Your task to perform on an android device: toggle sleep mode Image 0: 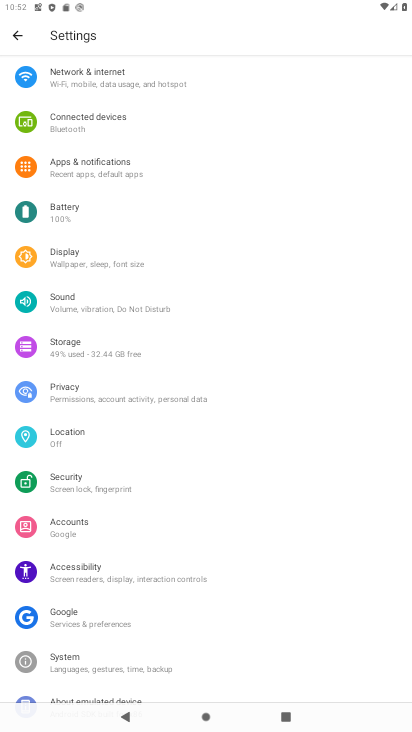
Step 0: click (106, 270)
Your task to perform on an android device: toggle sleep mode Image 1: 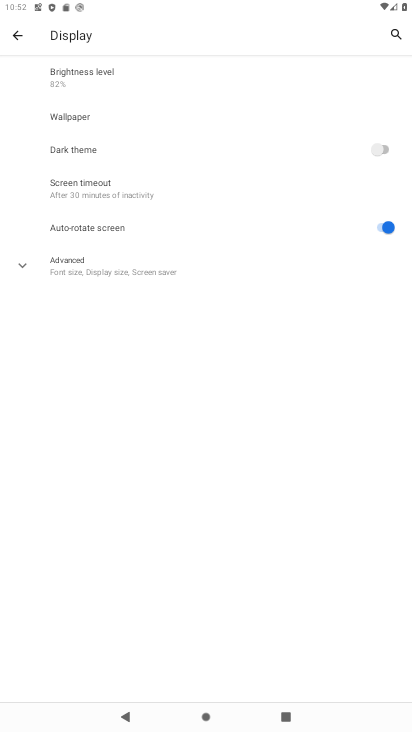
Step 1: click (116, 174)
Your task to perform on an android device: toggle sleep mode Image 2: 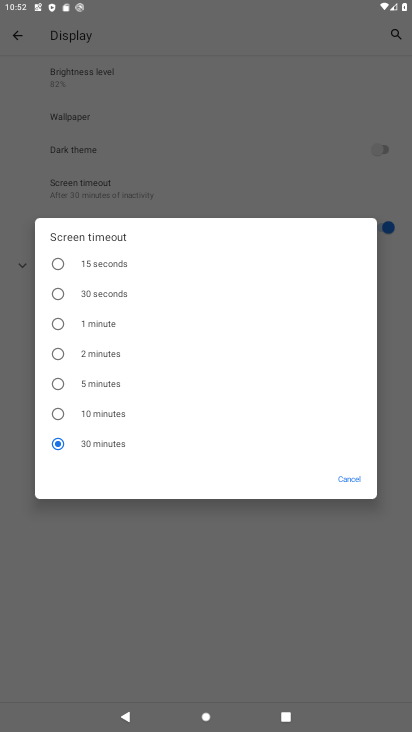
Step 2: click (118, 256)
Your task to perform on an android device: toggle sleep mode Image 3: 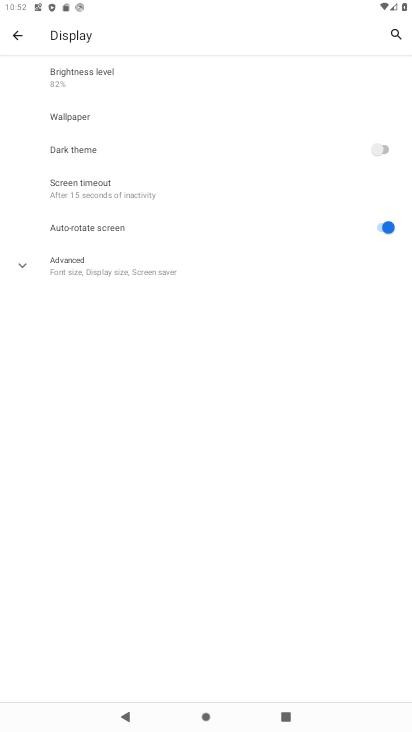
Step 3: task complete